Your task to perform on an android device: Go to Amazon Image 0: 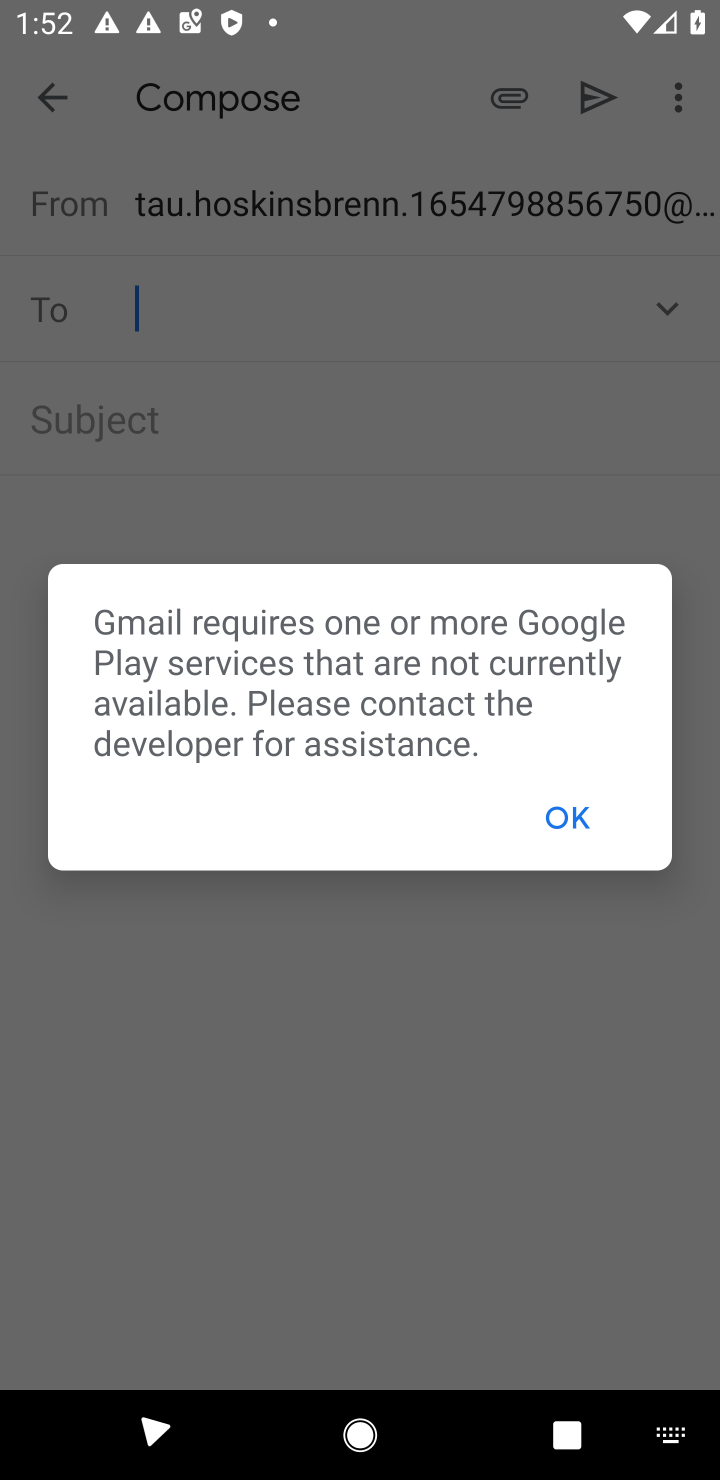
Step 0: press home button
Your task to perform on an android device: Go to Amazon Image 1: 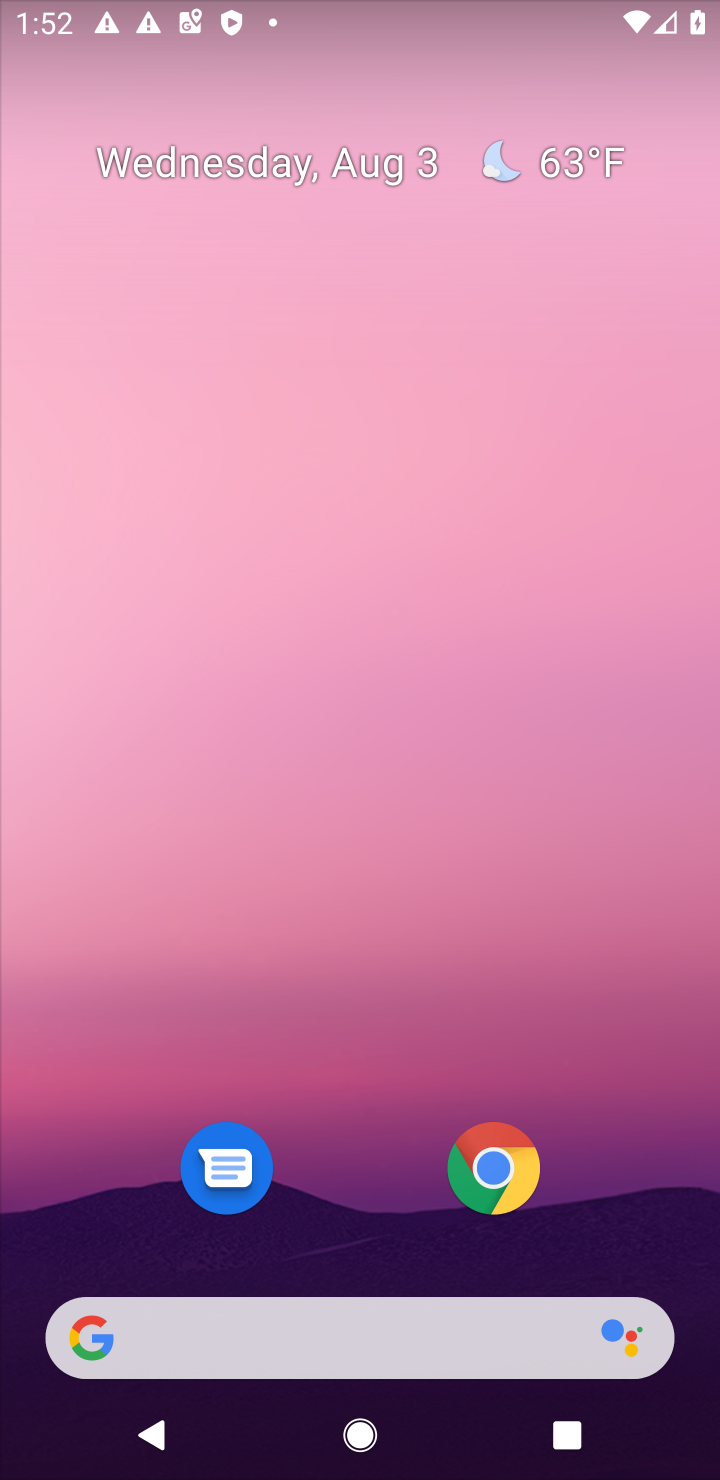
Step 1: click (501, 1168)
Your task to perform on an android device: Go to Amazon Image 2: 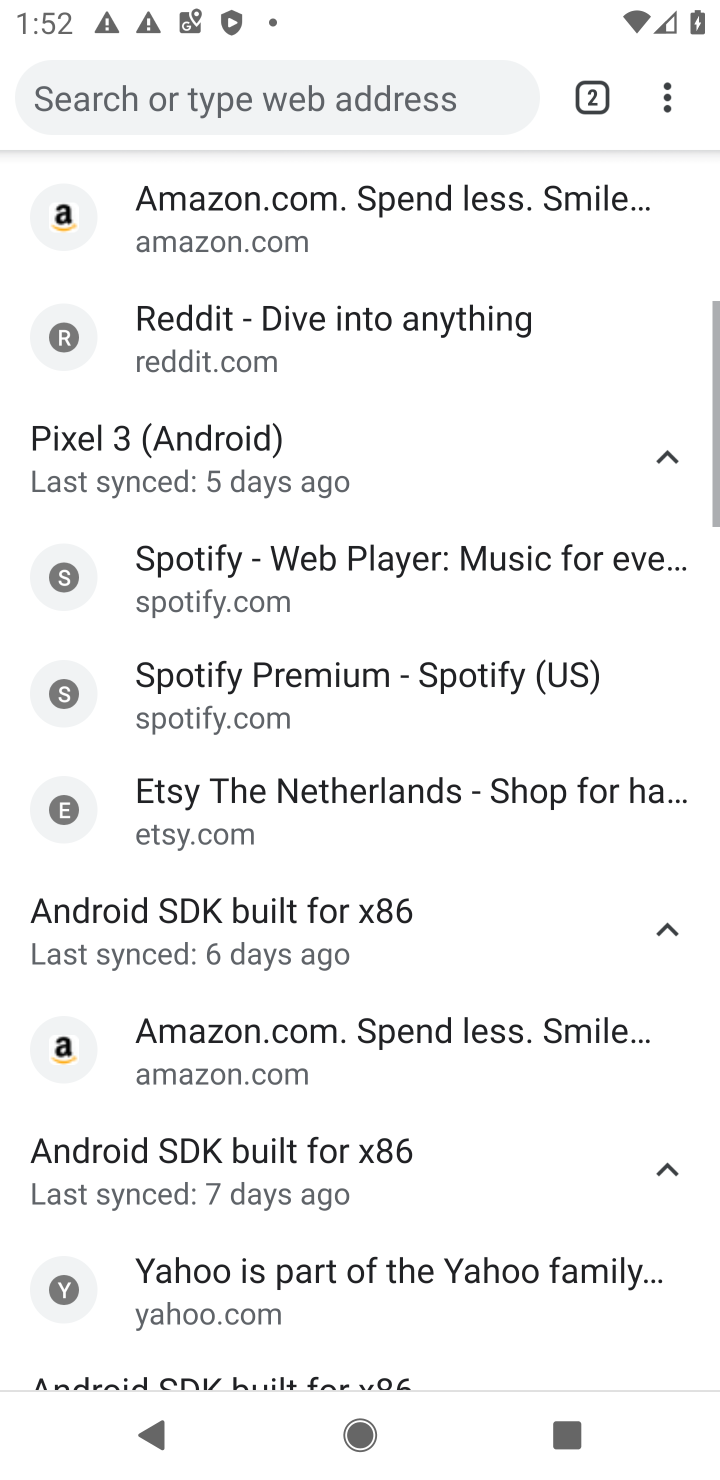
Step 2: task complete